Your task to perform on an android device: Open Youtube and go to "Your channel" Image 0: 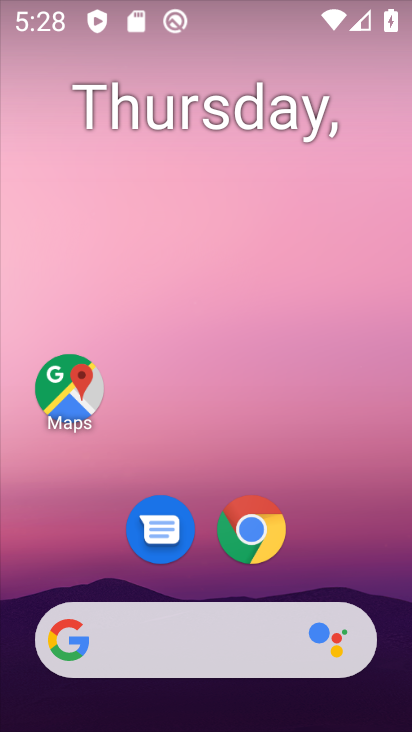
Step 0: drag from (357, 543) to (271, 48)
Your task to perform on an android device: Open Youtube and go to "Your channel" Image 1: 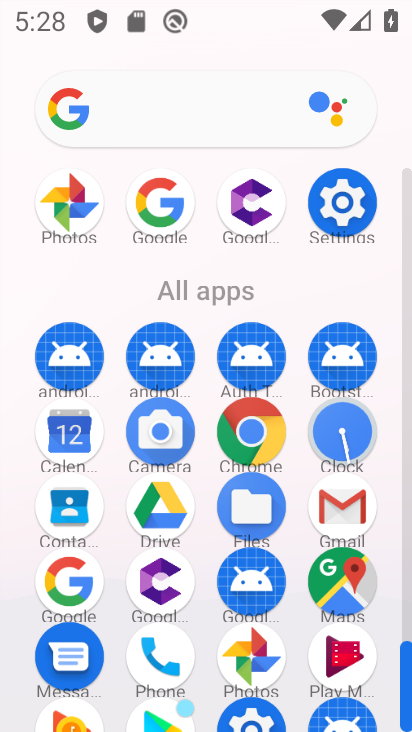
Step 1: drag from (297, 566) to (276, 193)
Your task to perform on an android device: Open Youtube and go to "Your channel" Image 2: 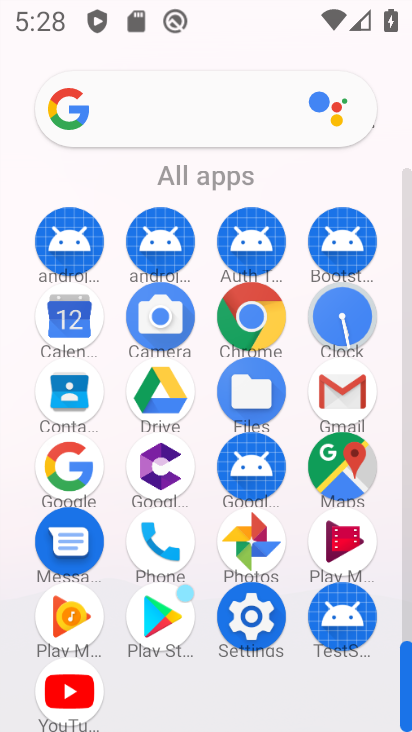
Step 2: click (66, 689)
Your task to perform on an android device: Open Youtube and go to "Your channel" Image 3: 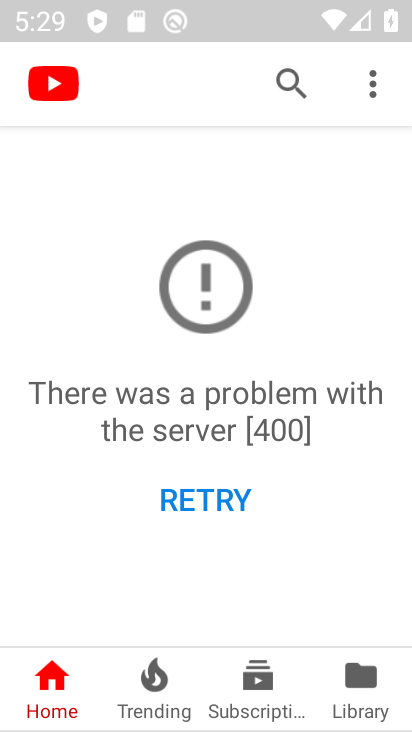
Step 3: click (223, 489)
Your task to perform on an android device: Open Youtube and go to "Your channel" Image 4: 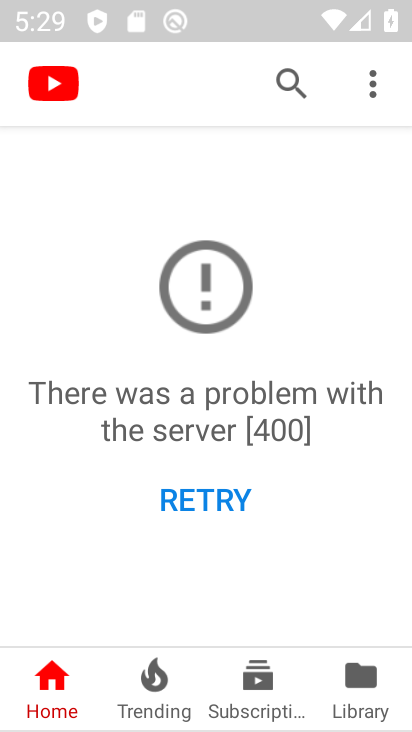
Step 4: click (223, 489)
Your task to perform on an android device: Open Youtube and go to "Your channel" Image 5: 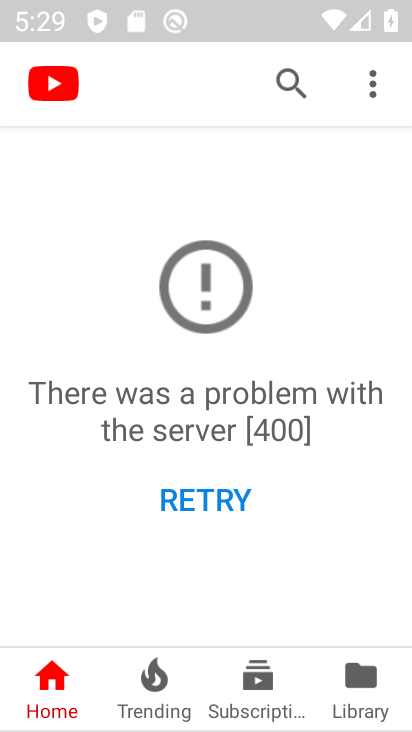
Step 5: click (211, 494)
Your task to perform on an android device: Open Youtube and go to "Your channel" Image 6: 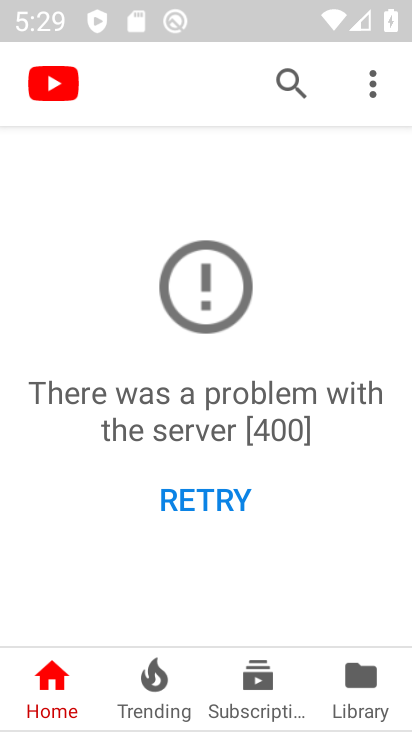
Step 6: click (224, 501)
Your task to perform on an android device: Open Youtube and go to "Your channel" Image 7: 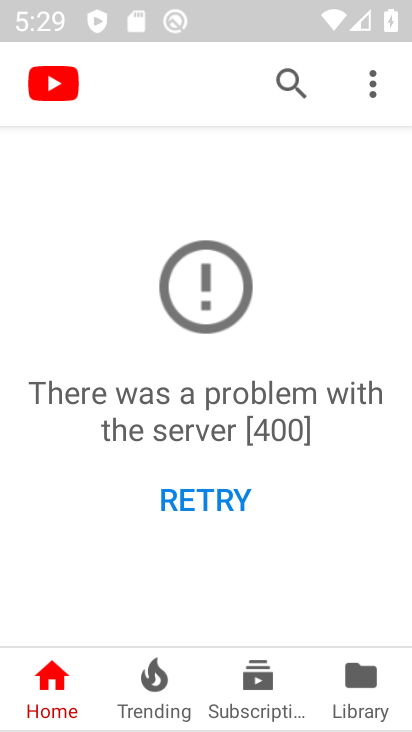
Step 7: task complete